Your task to perform on an android device: turn off notifications settings in the gmail app Image 0: 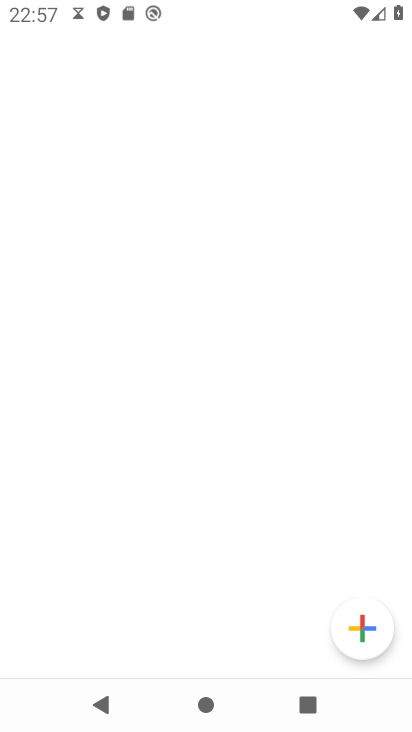
Step 0: drag from (237, 558) to (207, 8)
Your task to perform on an android device: turn off notifications settings in the gmail app Image 1: 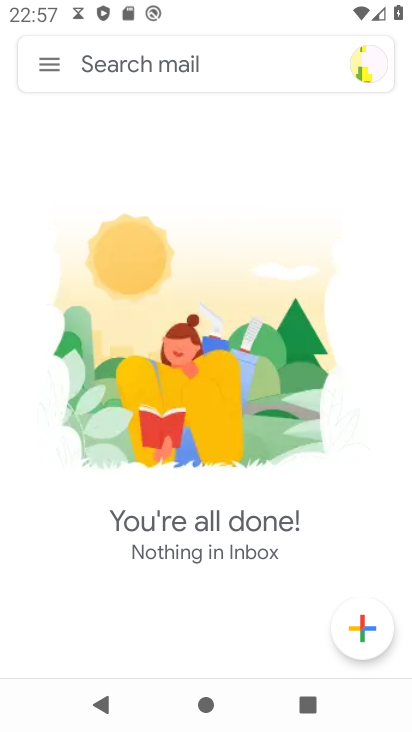
Step 1: press home button
Your task to perform on an android device: turn off notifications settings in the gmail app Image 2: 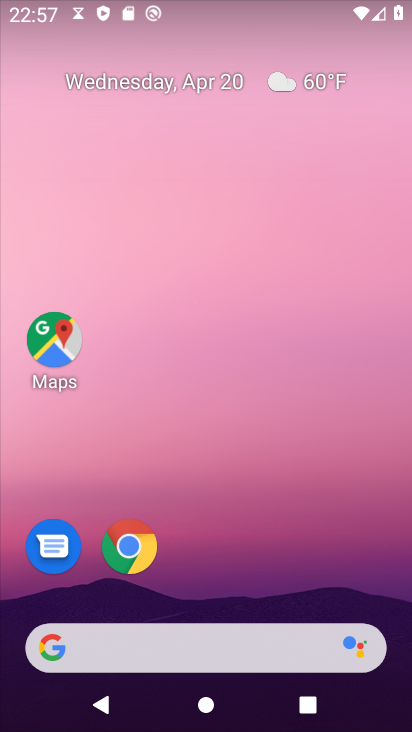
Step 2: drag from (236, 556) to (236, 124)
Your task to perform on an android device: turn off notifications settings in the gmail app Image 3: 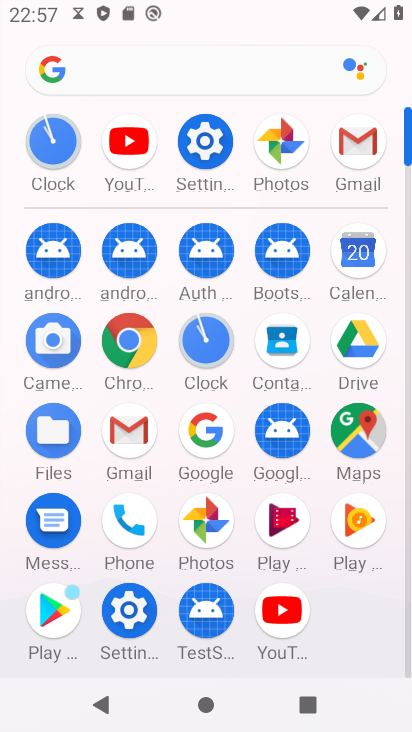
Step 3: click (134, 433)
Your task to perform on an android device: turn off notifications settings in the gmail app Image 4: 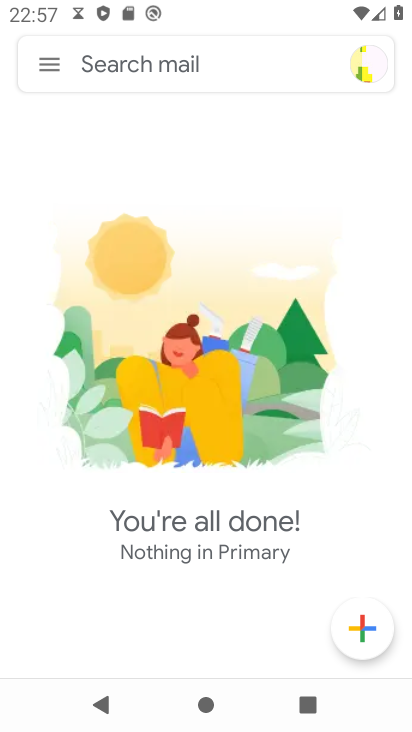
Step 4: click (50, 69)
Your task to perform on an android device: turn off notifications settings in the gmail app Image 5: 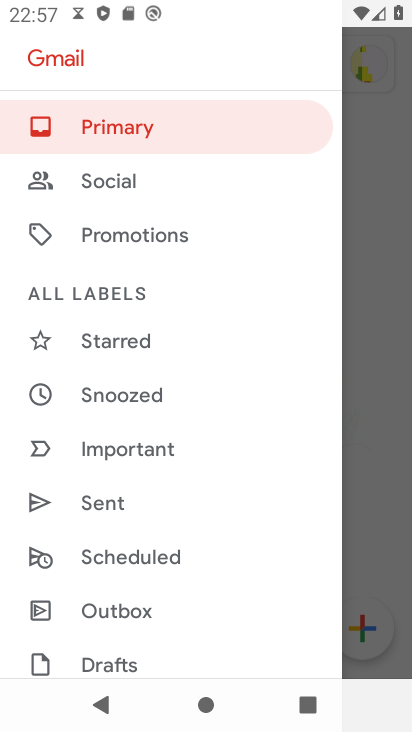
Step 5: drag from (213, 650) to (214, 105)
Your task to perform on an android device: turn off notifications settings in the gmail app Image 6: 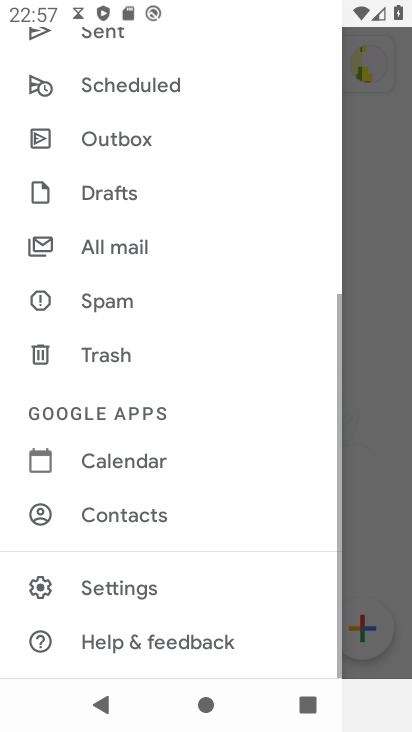
Step 6: click (153, 591)
Your task to perform on an android device: turn off notifications settings in the gmail app Image 7: 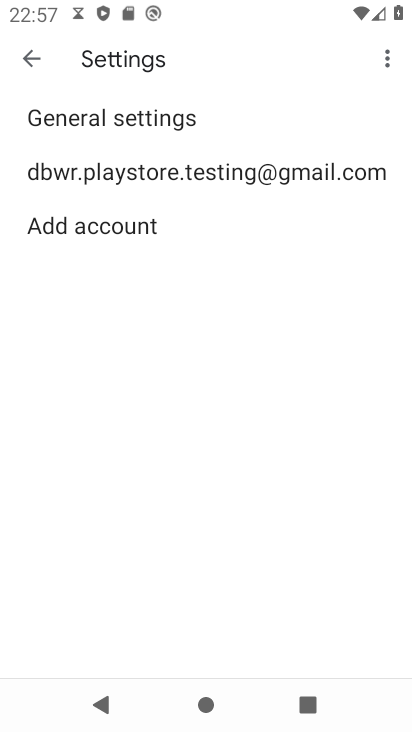
Step 7: click (192, 177)
Your task to perform on an android device: turn off notifications settings in the gmail app Image 8: 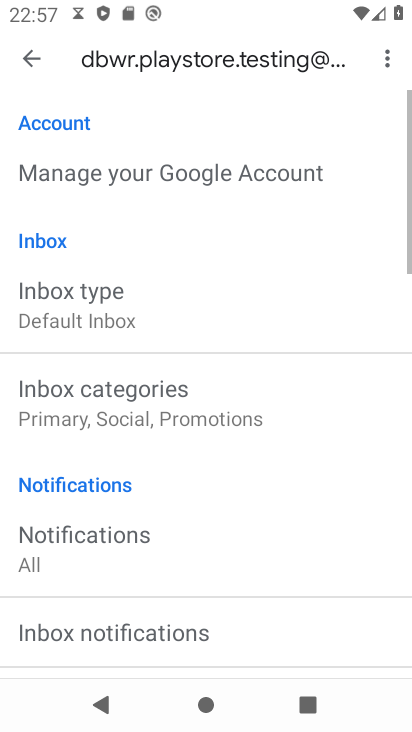
Step 8: drag from (195, 536) to (206, 154)
Your task to perform on an android device: turn off notifications settings in the gmail app Image 9: 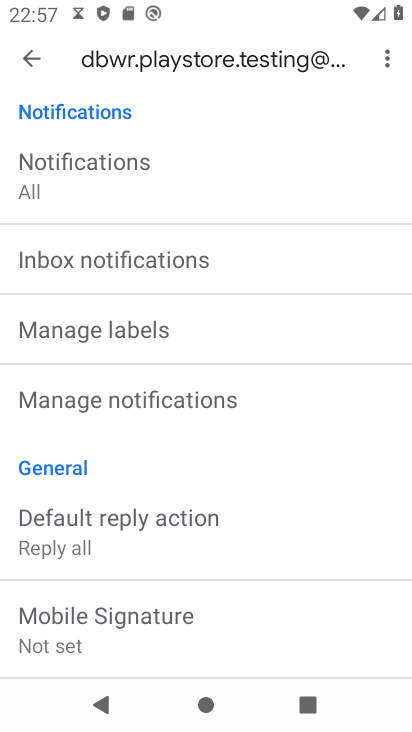
Step 9: click (134, 399)
Your task to perform on an android device: turn off notifications settings in the gmail app Image 10: 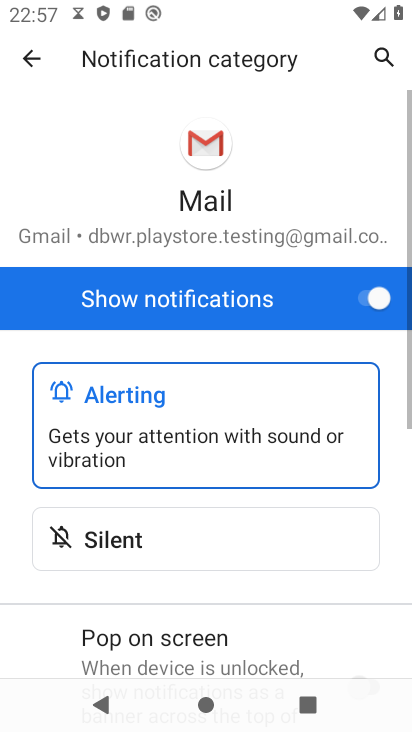
Step 10: click (363, 311)
Your task to perform on an android device: turn off notifications settings in the gmail app Image 11: 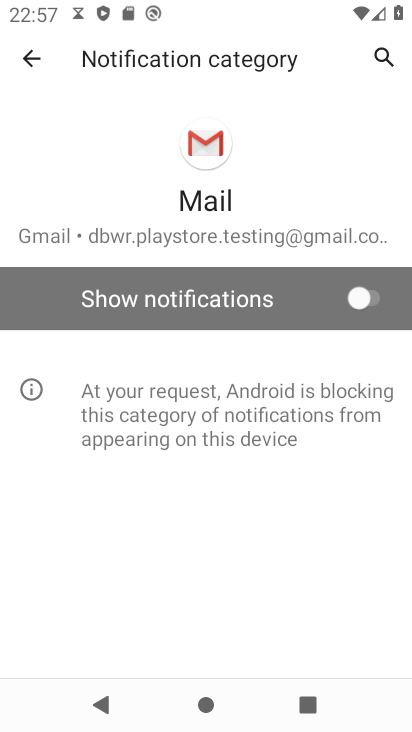
Step 11: task complete